Your task to perform on an android device: change the clock style Image 0: 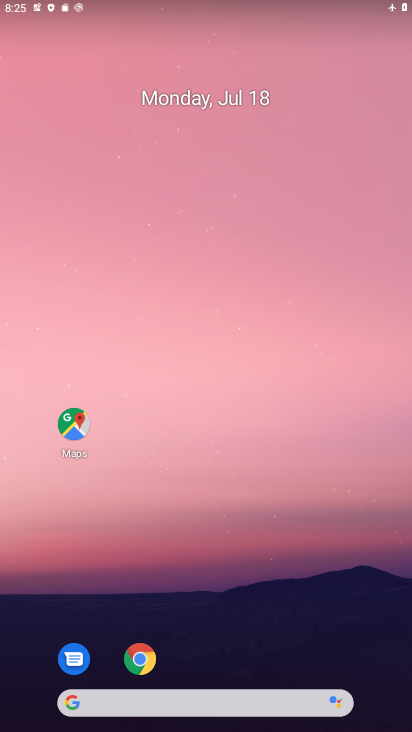
Step 0: drag from (259, 674) to (157, 83)
Your task to perform on an android device: change the clock style Image 1: 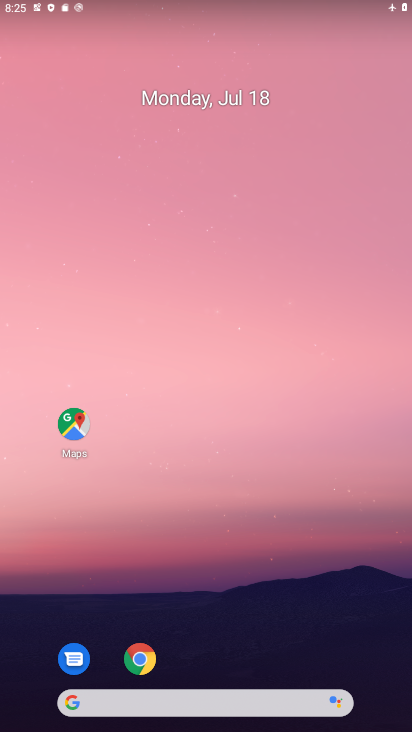
Step 1: drag from (248, 662) to (88, 125)
Your task to perform on an android device: change the clock style Image 2: 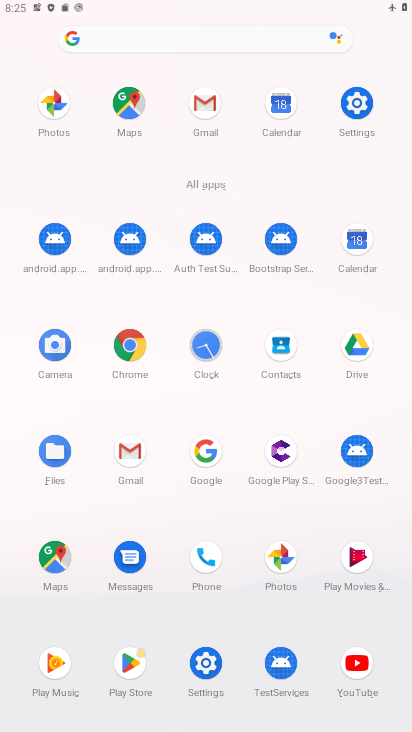
Step 2: drag from (242, 601) to (224, 193)
Your task to perform on an android device: change the clock style Image 3: 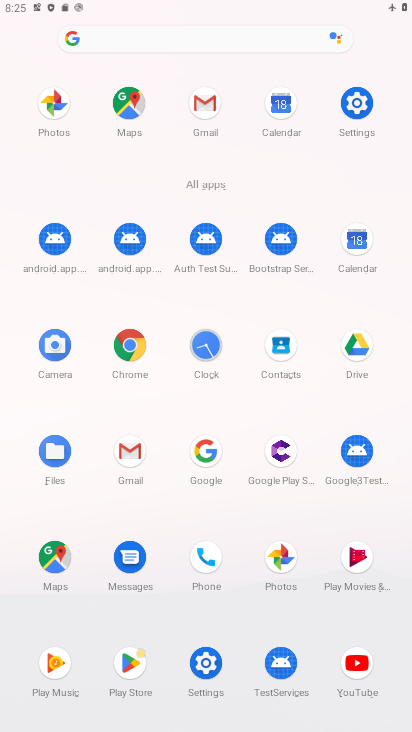
Step 3: click (205, 352)
Your task to perform on an android device: change the clock style Image 4: 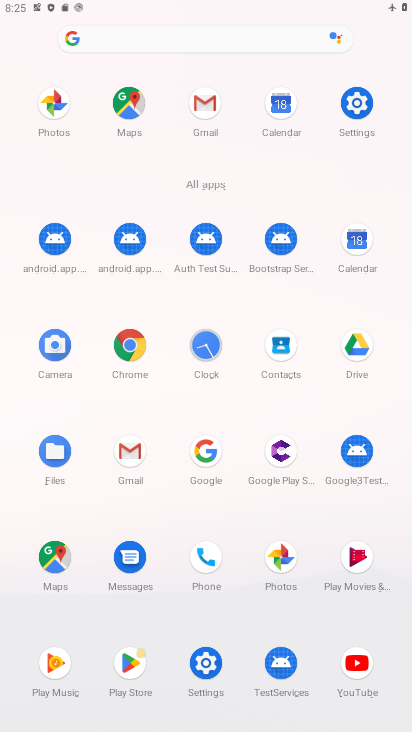
Step 4: click (205, 352)
Your task to perform on an android device: change the clock style Image 5: 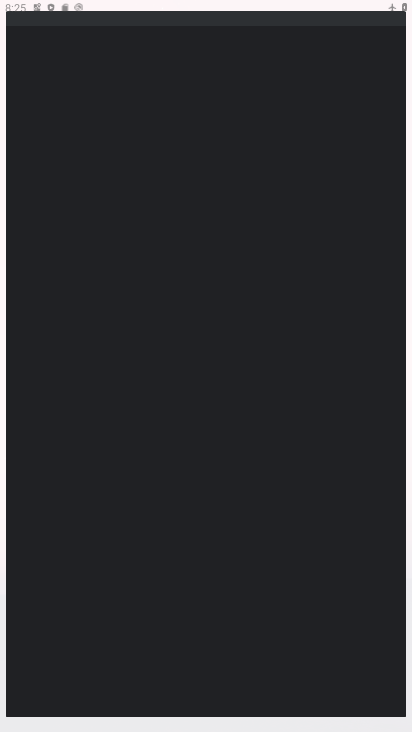
Step 5: click (203, 352)
Your task to perform on an android device: change the clock style Image 6: 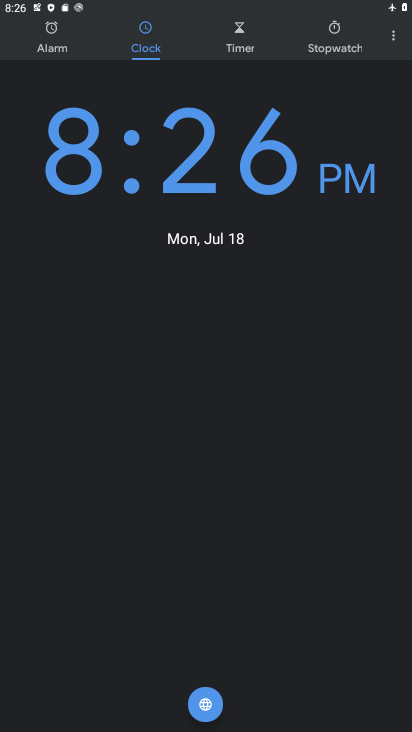
Step 6: drag from (397, 41) to (376, 154)
Your task to perform on an android device: change the clock style Image 7: 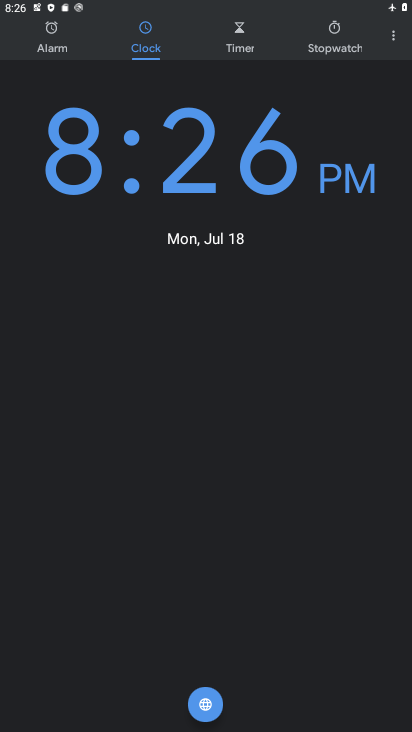
Step 7: drag from (389, 40) to (397, 79)
Your task to perform on an android device: change the clock style Image 8: 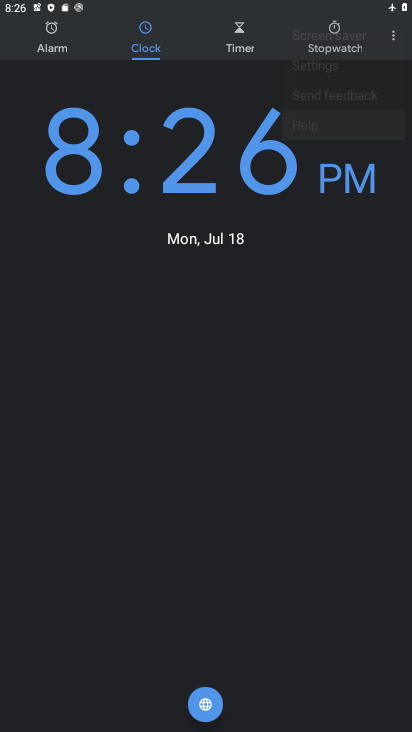
Step 8: click (392, 31)
Your task to perform on an android device: change the clock style Image 9: 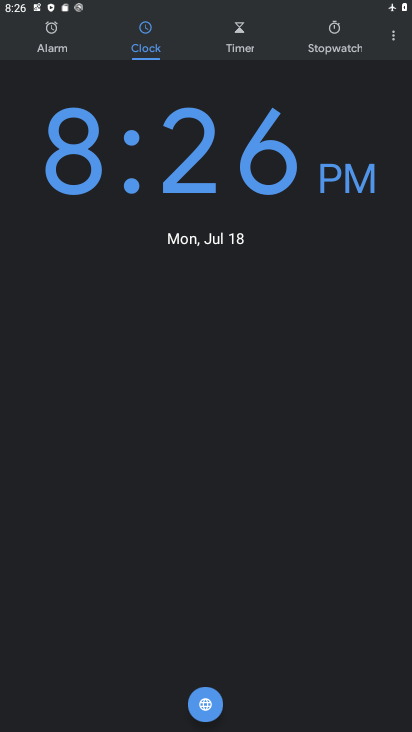
Step 9: click (392, 31)
Your task to perform on an android device: change the clock style Image 10: 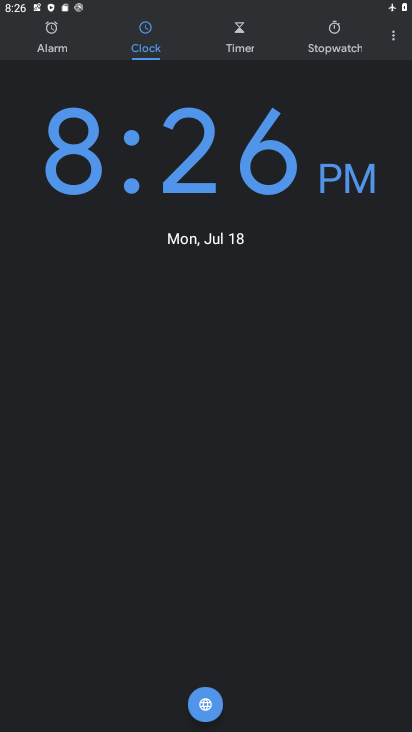
Step 10: click (389, 45)
Your task to perform on an android device: change the clock style Image 11: 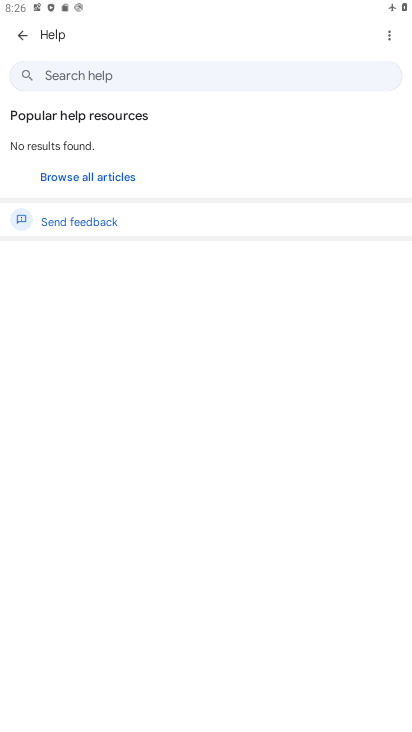
Step 11: click (389, 42)
Your task to perform on an android device: change the clock style Image 12: 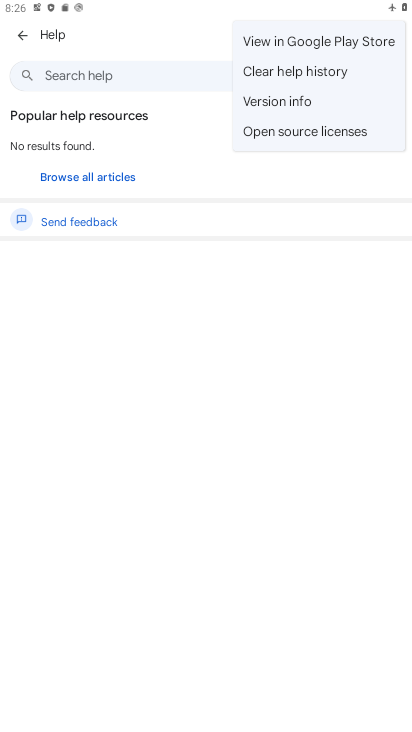
Step 12: click (14, 30)
Your task to perform on an android device: change the clock style Image 13: 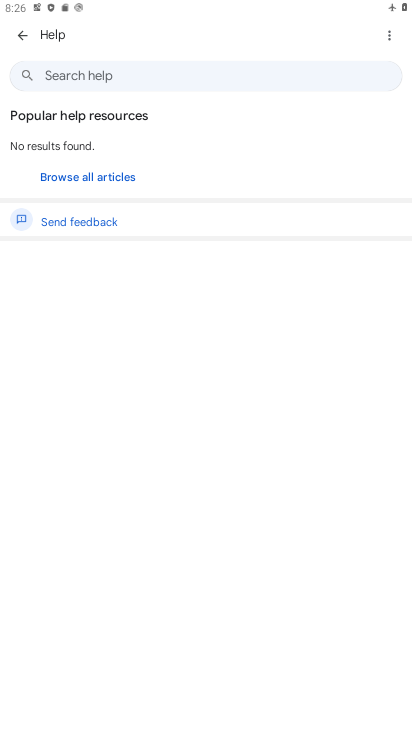
Step 13: click (23, 34)
Your task to perform on an android device: change the clock style Image 14: 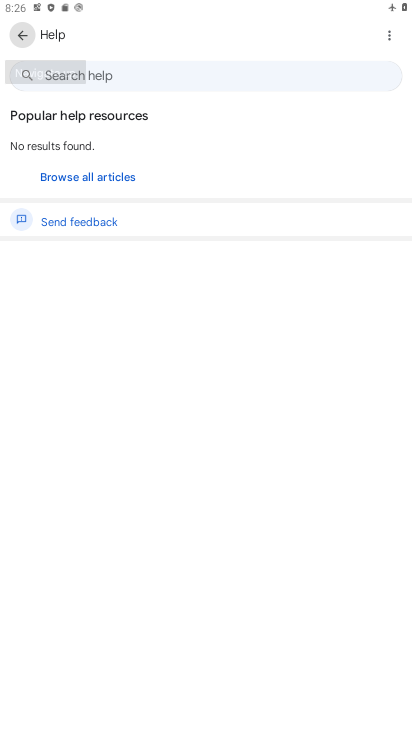
Step 14: click (23, 34)
Your task to perform on an android device: change the clock style Image 15: 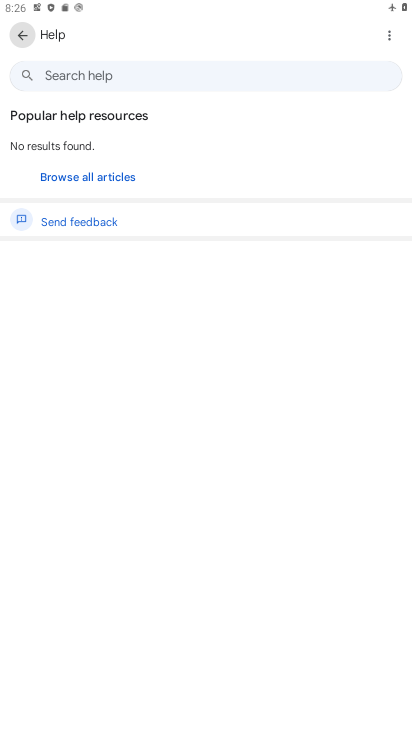
Step 15: click (23, 34)
Your task to perform on an android device: change the clock style Image 16: 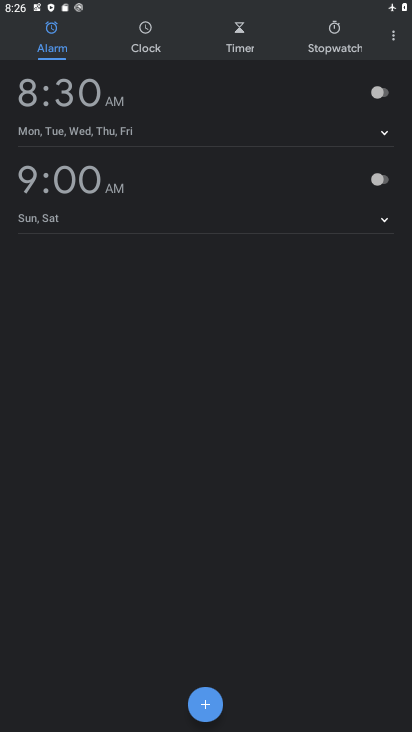
Step 16: click (391, 36)
Your task to perform on an android device: change the clock style Image 17: 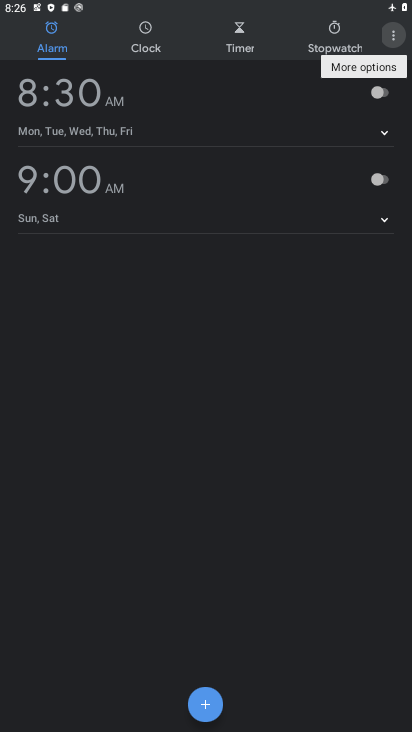
Step 17: click (391, 45)
Your task to perform on an android device: change the clock style Image 18: 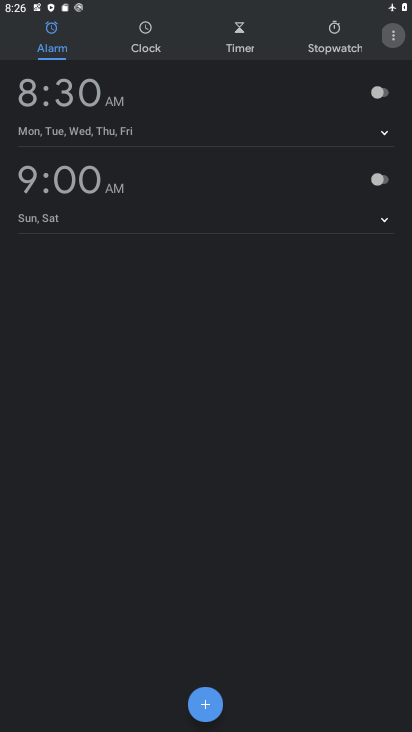
Step 18: click (391, 44)
Your task to perform on an android device: change the clock style Image 19: 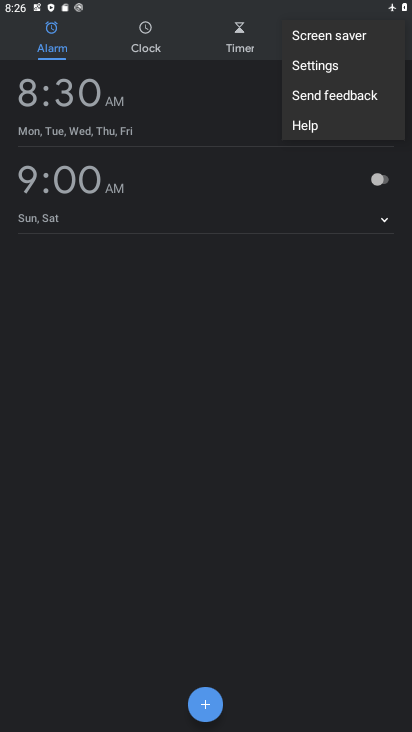
Step 19: click (317, 59)
Your task to perform on an android device: change the clock style Image 20: 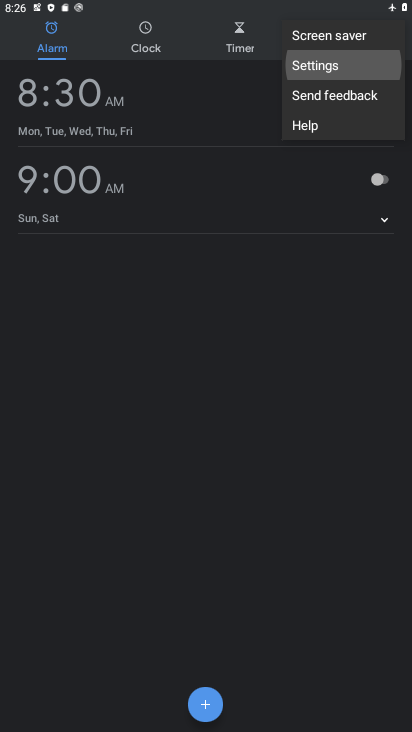
Step 20: click (317, 61)
Your task to perform on an android device: change the clock style Image 21: 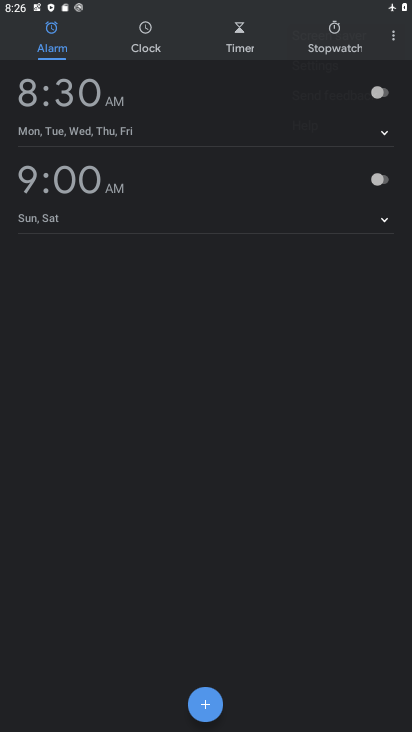
Step 21: click (317, 61)
Your task to perform on an android device: change the clock style Image 22: 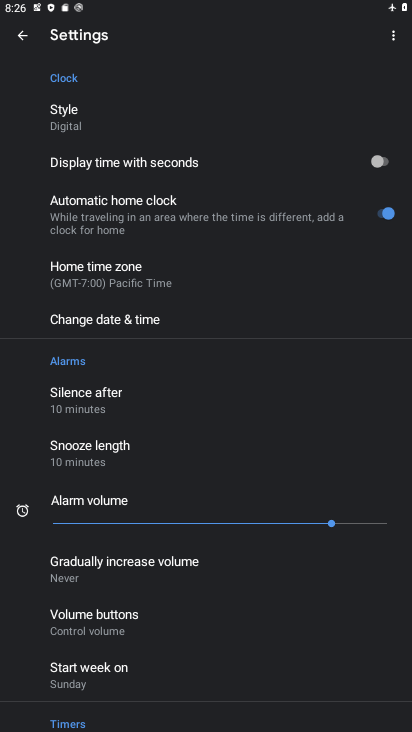
Step 22: click (86, 121)
Your task to perform on an android device: change the clock style Image 23: 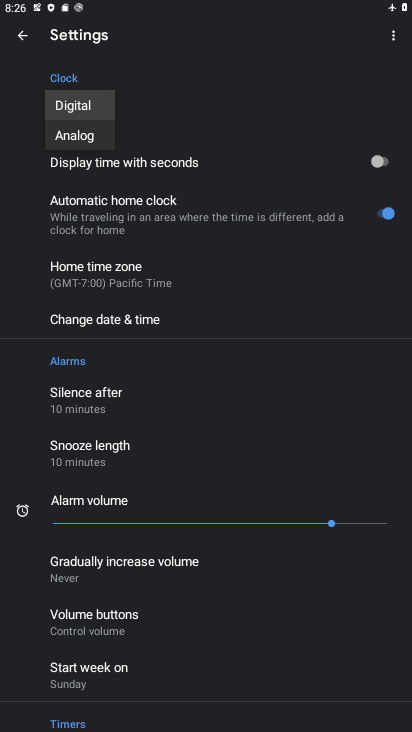
Step 23: click (75, 143)
Your task to perform on an android device: change the clock style Image 24: 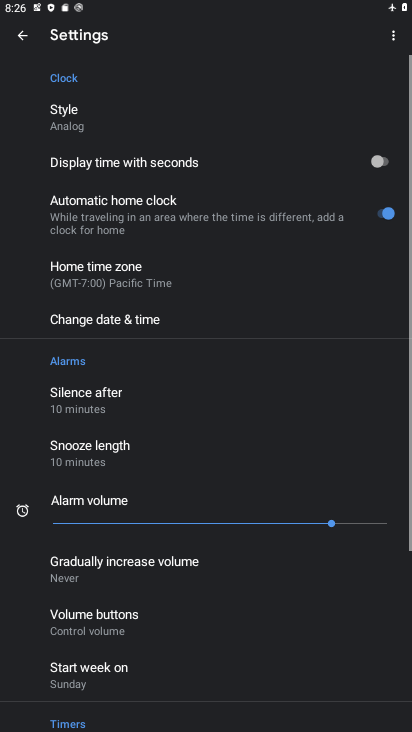
Step 24: task complete